Your task to perform on an android device: toggle pop-ups in chrome Image 0: 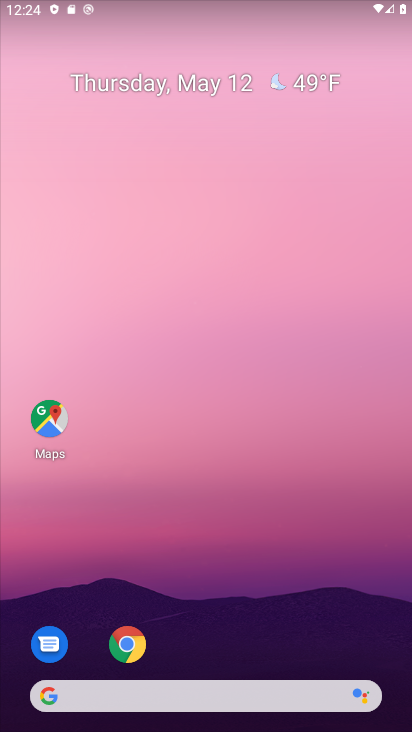
Step 0: click (130, 644)
Your task to perform on an android device: toggle pop-ups in chrome Image 1: 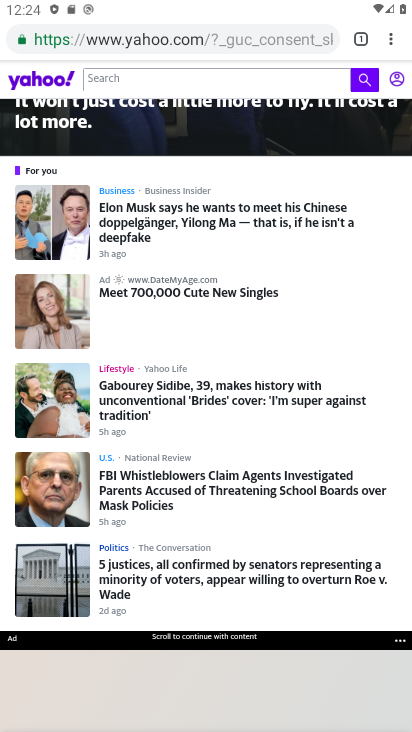
Step 1: click (391, 36)
Your task to perform on an android device: toggle pop-ups in chrome Image 2: 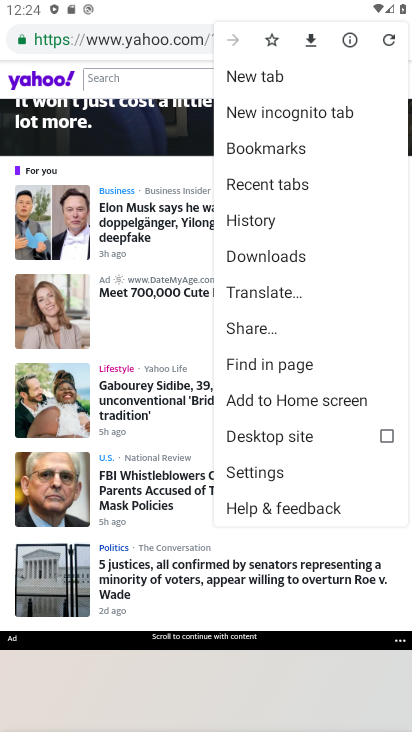
Step 2: click (270, 474)
Your task to perform on an android device: toggle pop-ups in chrome Image 3: 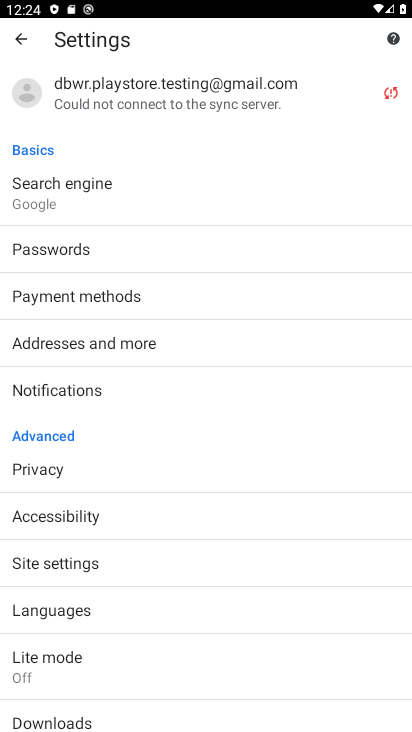
Step 3: drag from (149, 570) to (131, 411)
Your task to perform on an android device: toggle pop-ups in chrome Image 4: 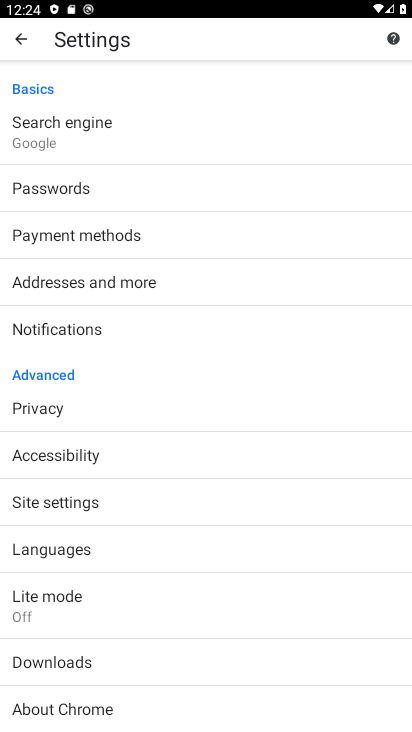
Step 4: click (90, 499)
Your task to perform on an android device: toggle pop-ups in chrome Image 5: 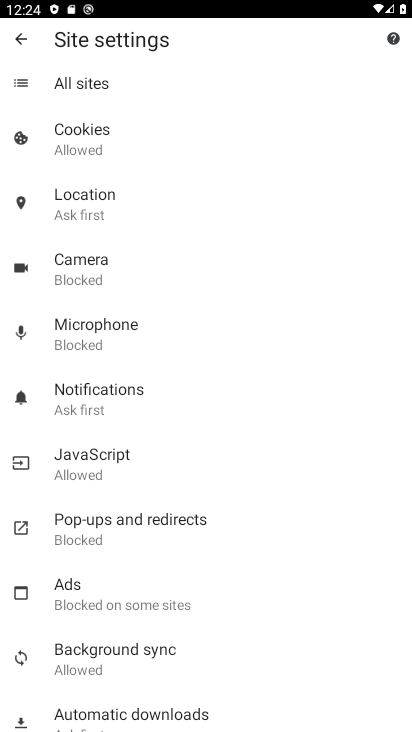
Step 5: click (128, 524)
Your task to perform on an android device: toggle pop-ups in chrome Image 6: 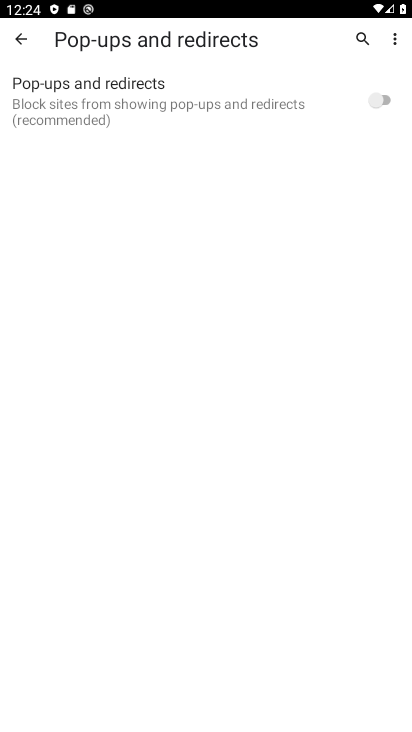
Step 6: click (374, 96)
Your task to perform on an android device: toggle pop-ups in chrome Image 7: 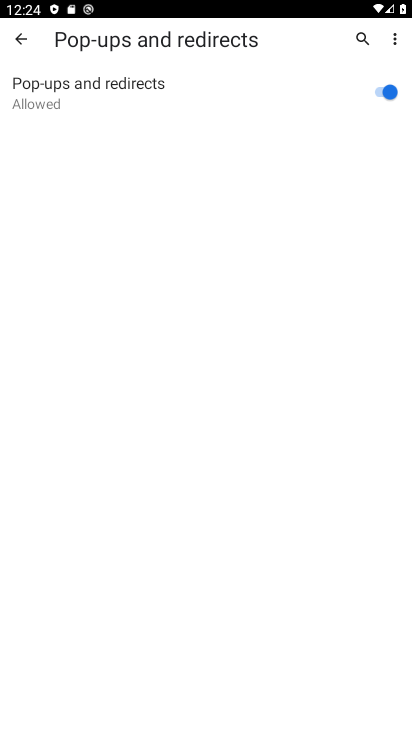
Step 7: task complete